Your task to perform on an android device: turn on location history Image 0: 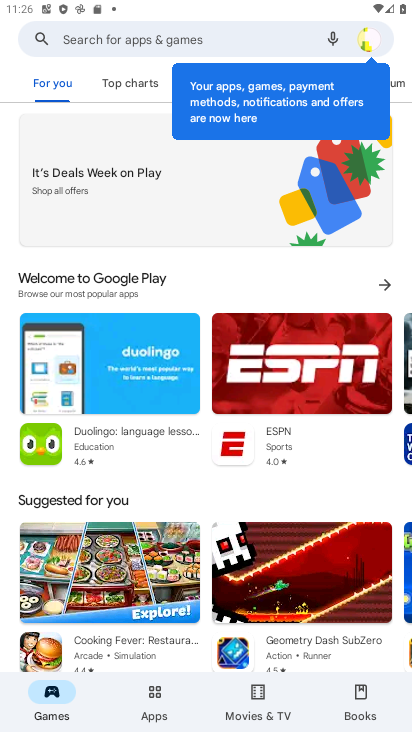
Step 0: press home button
Your task to perform on an android device: turn on location history Image 1: 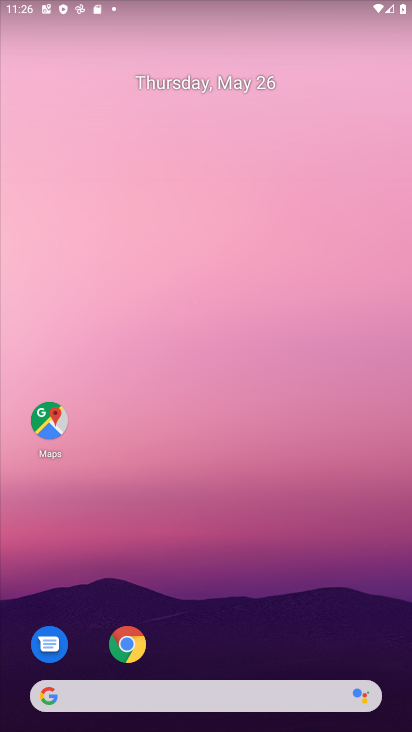
Step 1: drag from (331, 621) to (317, 6)
Your task to perform on an android device: turn on location history Image 2: 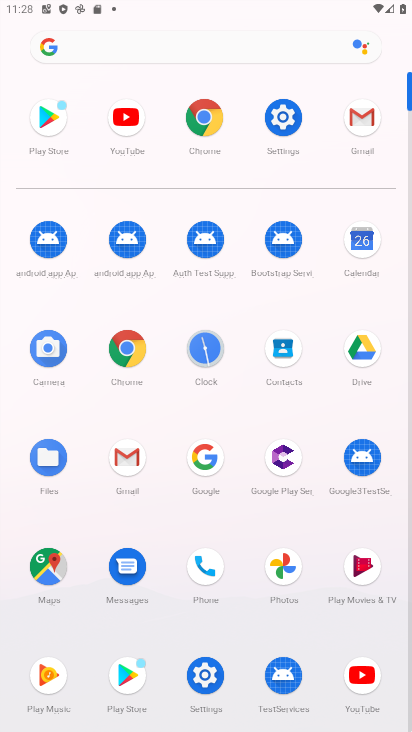
Step 2: click (210, 673)
Your task to perform on an android device: turn on location history Image 3: 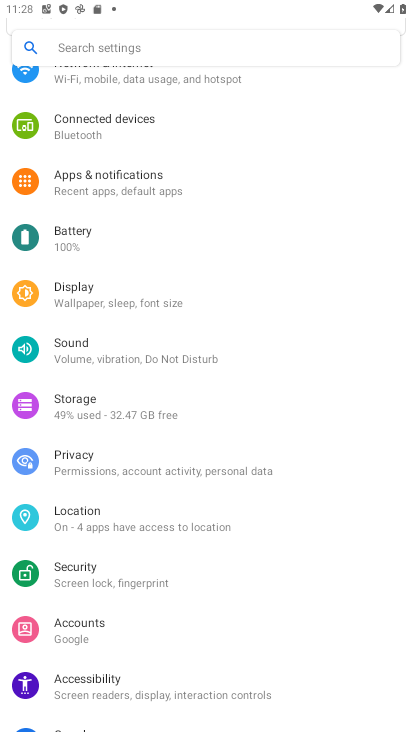
Step 3: click (109, 510)
Your task to perform on an android device: turn on location history Image 4: 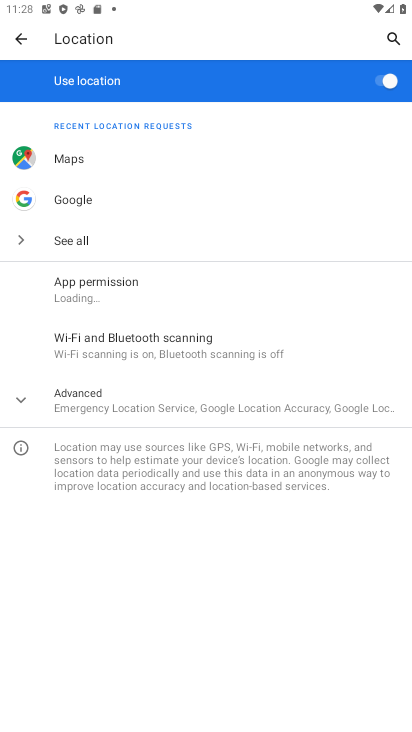
Step 4: click (103, 388)
Your task to perform on an android device: turn on location history Image 5: 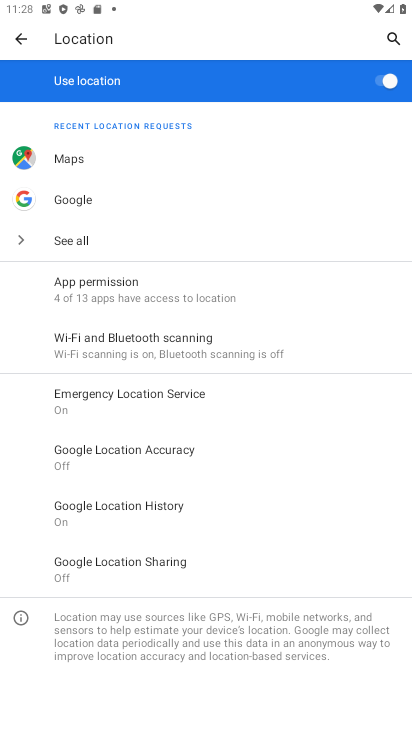
Step 5: click (127, 507)
Your task to perform on an android device: turn on location history Image 6: 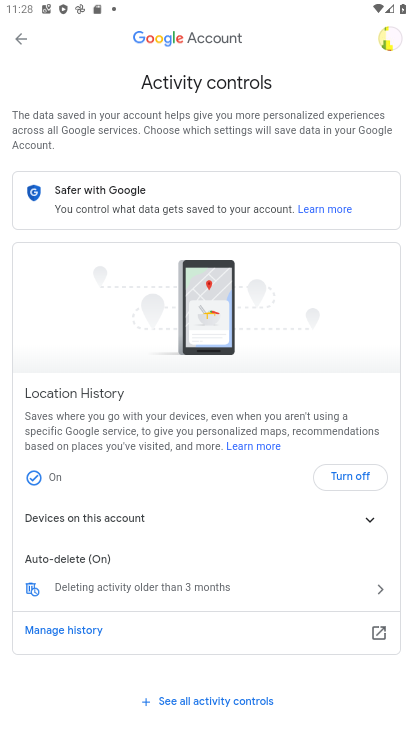
Step 6: click (357, 479)
Your task to perform on an android device: turn on location history Image 7: 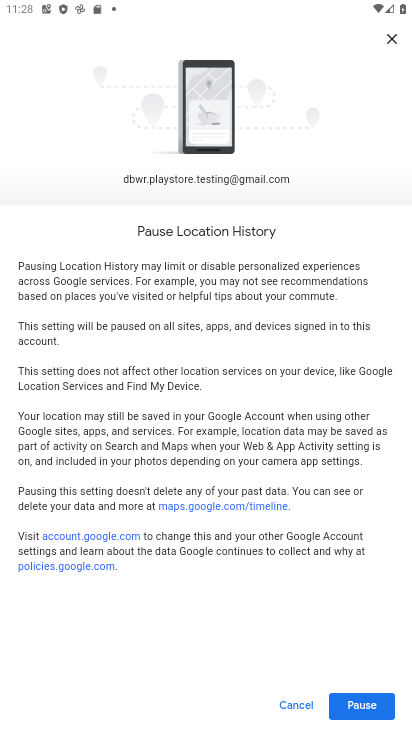
Step 7: task complete